Your task to perform on an android device: turn on sleep mode Image 0: 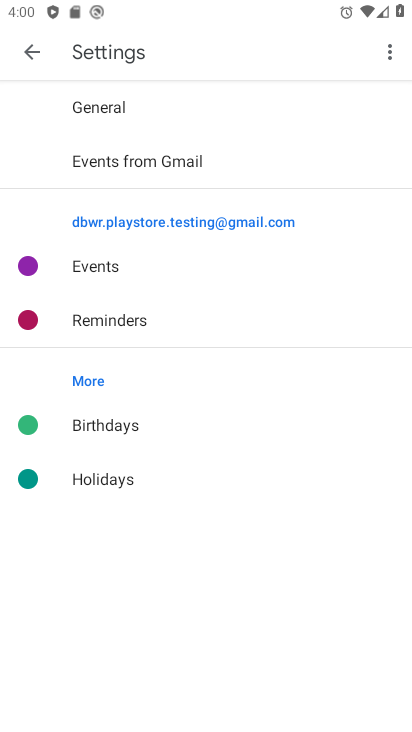
Step 0: press home button
Your task to perform on an android device: turn on sleep mode Image 1: 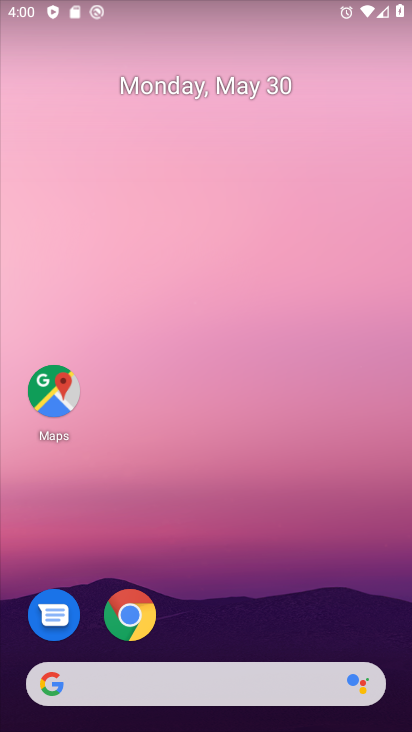
Step 1: drag from (207, 579) to (280, 10)
Your task to perform on an android device: turn on sleep mode Image 2: 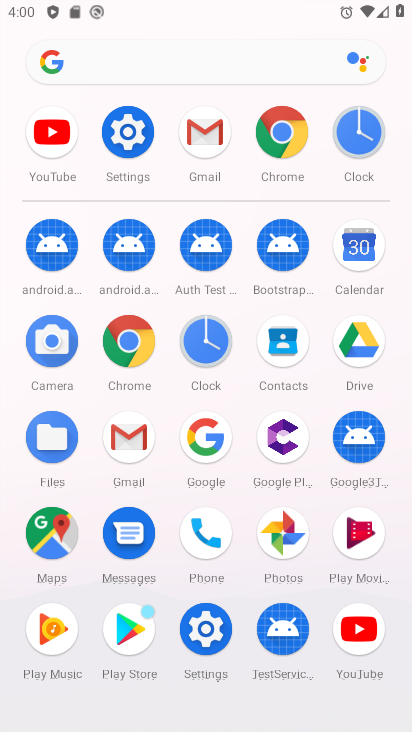
Step 2: click (132, 122)
Your task to perform on an android device: turn on sleep mode Image 3: 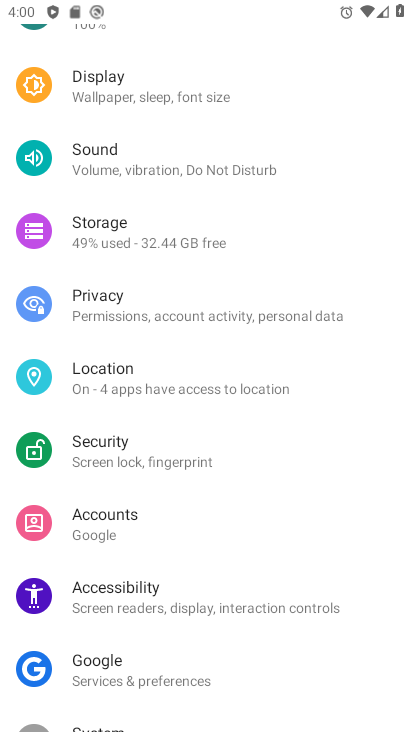
Step 3: click (202, 92)
Your task to perform on an android device: turn on sleep mode Image 4: 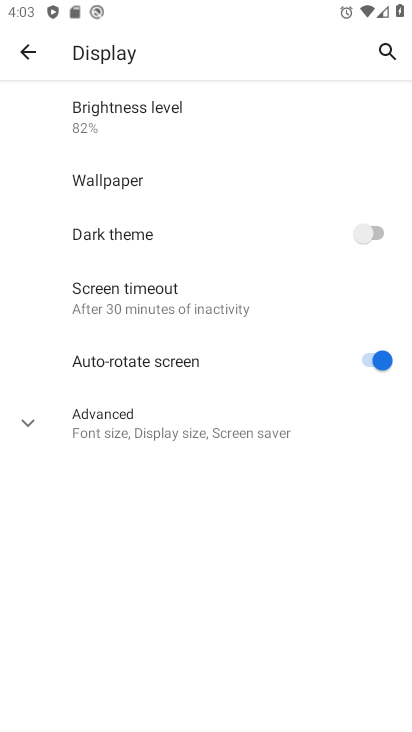
Step 4: task complete